Your task to perform on an android device: turn off notifications settings in the gmail app Image 0: 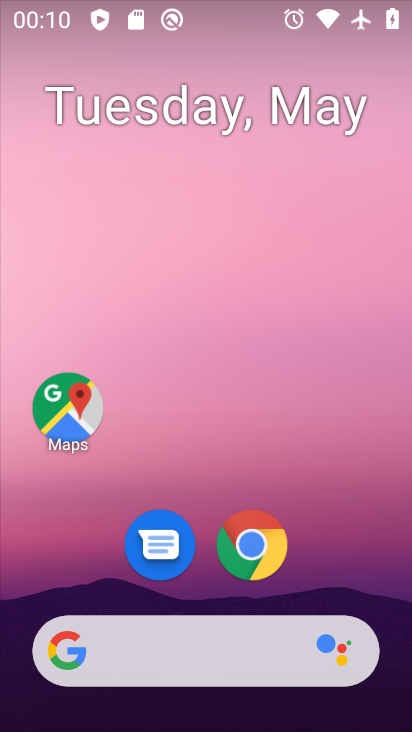
Step 0: drag from (320, 572) to (300, 10)
Your task to perform on an android device: turn off notifications settings in the gmail app Image 1: 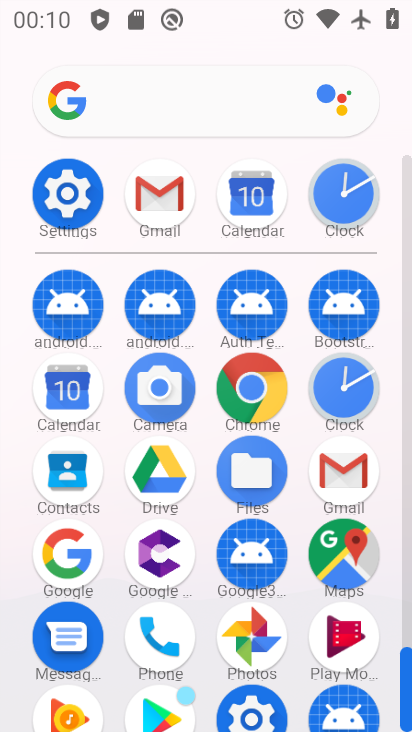
Step 1: click (346, 469)
Your task to perform on an android device: turn off notifications settings in the gmail app Image 2: 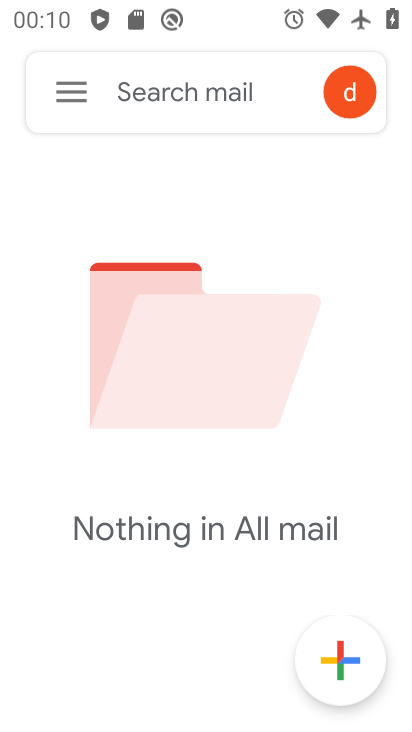
Step 2: click (67, 91)
Your task to perform on an android device: turn off notifications settings in the gmail app Image 3: 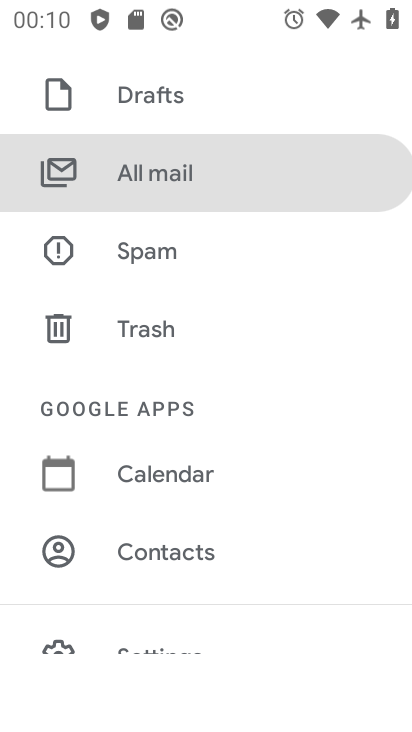
Step 3: drag from (247, 573) to (274, 365)
Your task to perform on an android device: turn off notifications settings in the gmail app Image 4: 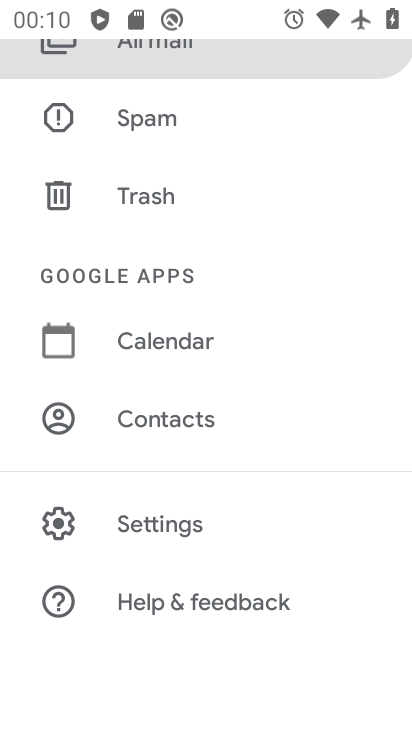
Step 4: click (202, 526)
Your task to perform on an android device: turn off notifications settings in the gmail app Image 5: 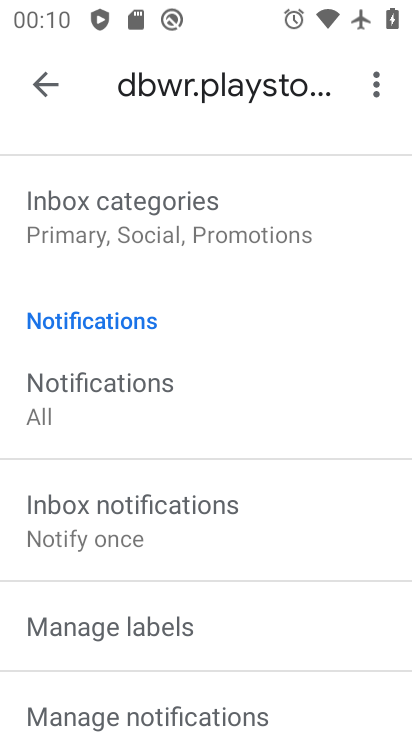
Step 5: drag from (65, 660) to (92, 476)
Your task to perform on an android device: turn off notifications settings in the gmail app Image 6: 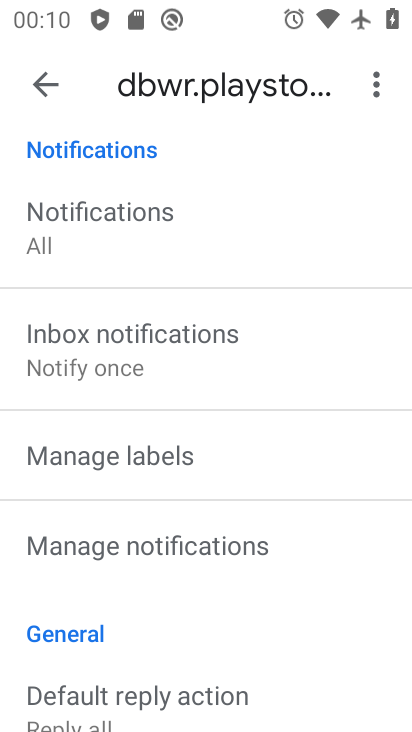
Step 6: click (103, 540)
Your task to perform on an android device: turn off notifications settings in the gmail app Image 7: 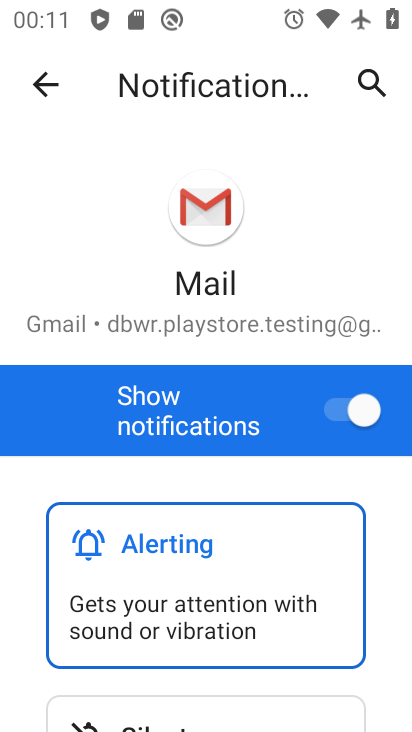
Step 7: click (352, 398)
Your task to perform on an android device: turn off notifications settings in the gmail app Image 8: 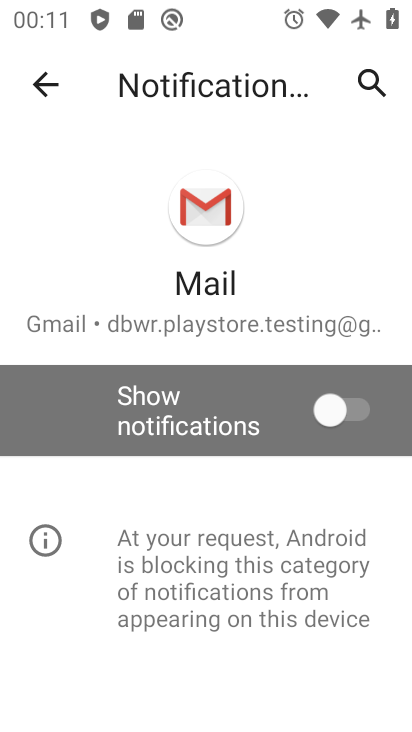
Step 8: task complete